Your task to perform on an android device: Clear the cart on bestbuy. Add lg ultragear to the cart on bestbuy Image 0: 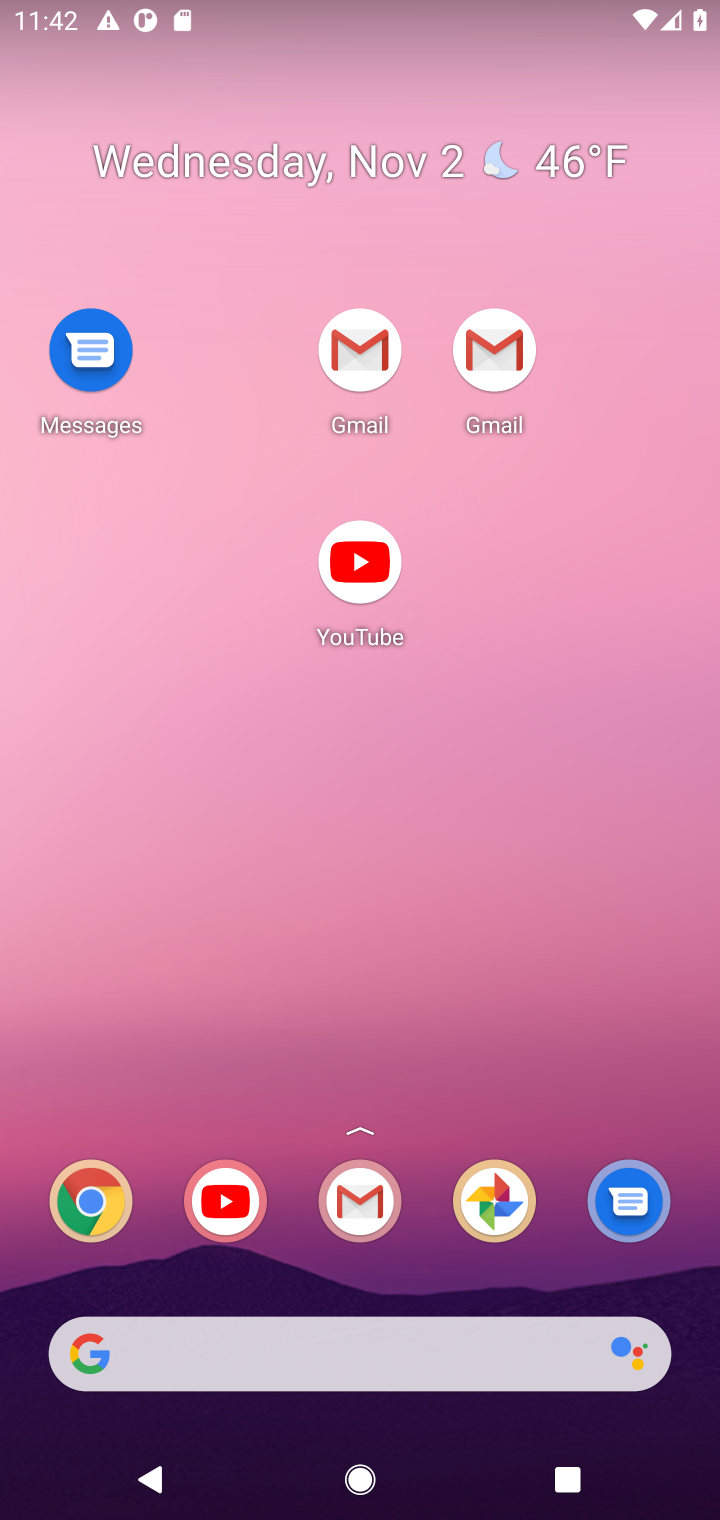
Step 0: drag from (423, 1280) to (364, 193)
Your task to perform on an android device: Clear the cart on bestbuy. Add lg ultragear to the cart on bestbuy Image 1: 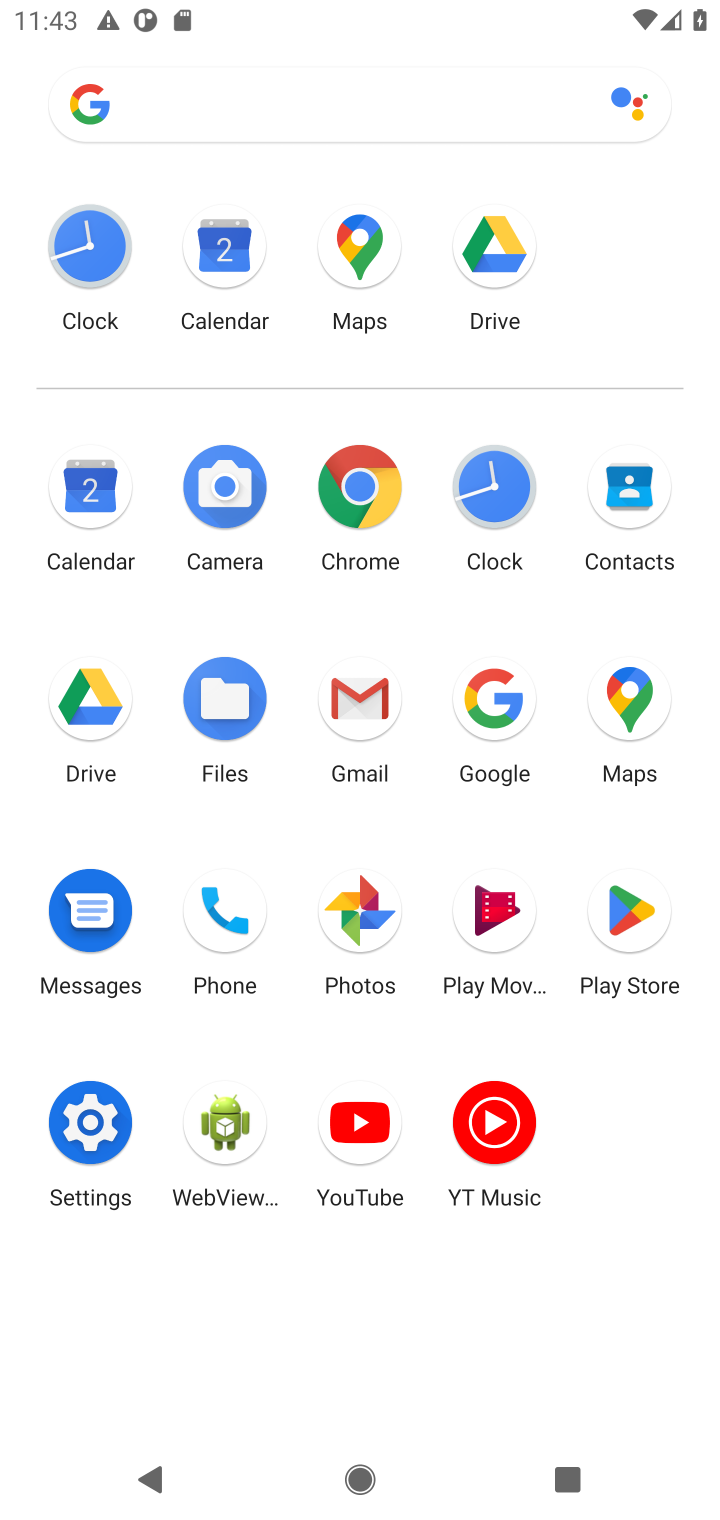
Step 1: click (347, 498)
Your task to perform on an android device: Clear the cart on bestbuy. Add lg ultragear to the cart on bestbuy Image 2: 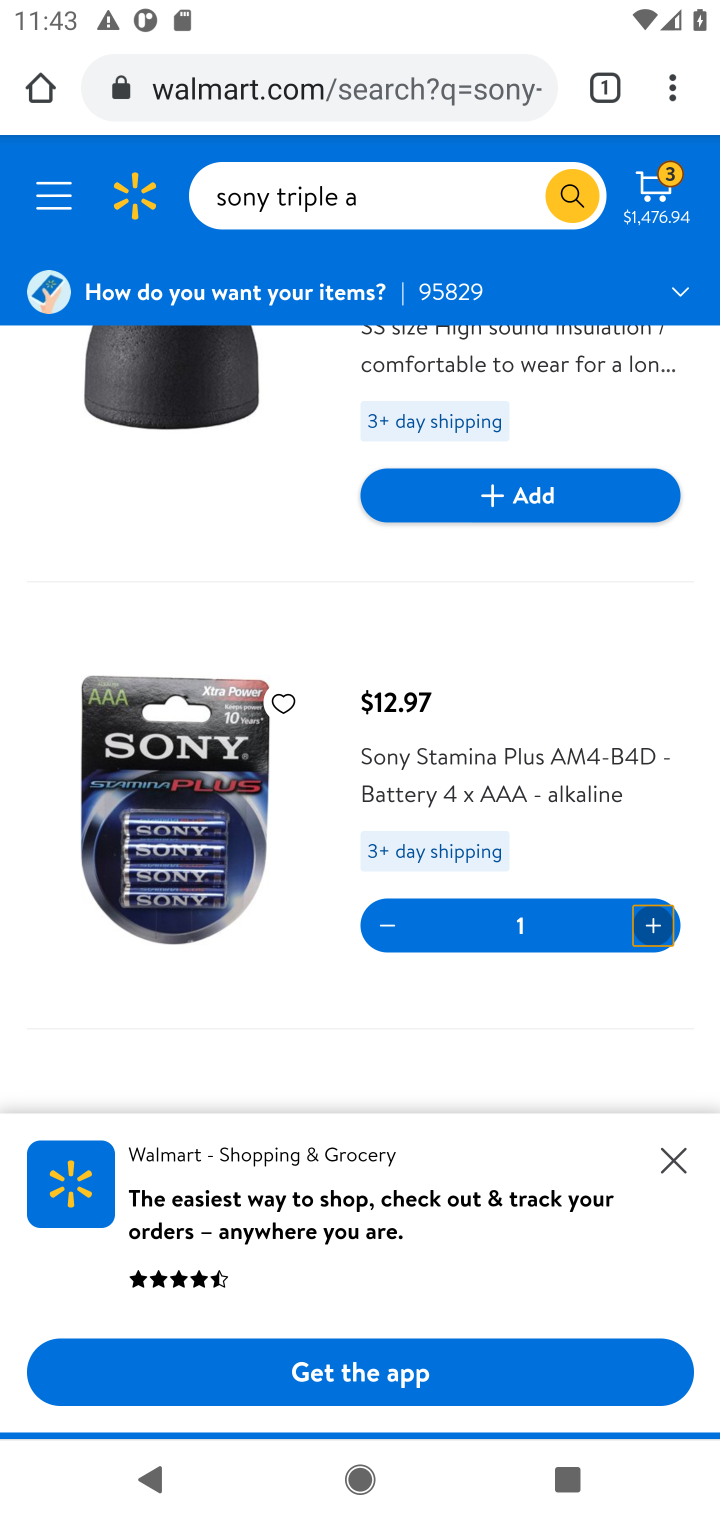
Step 2: click (327, 92)
Your task to perform on an android device: Clear the cart on bestbuy. Add lg ultragear to the cart on bestbuy Image 3: 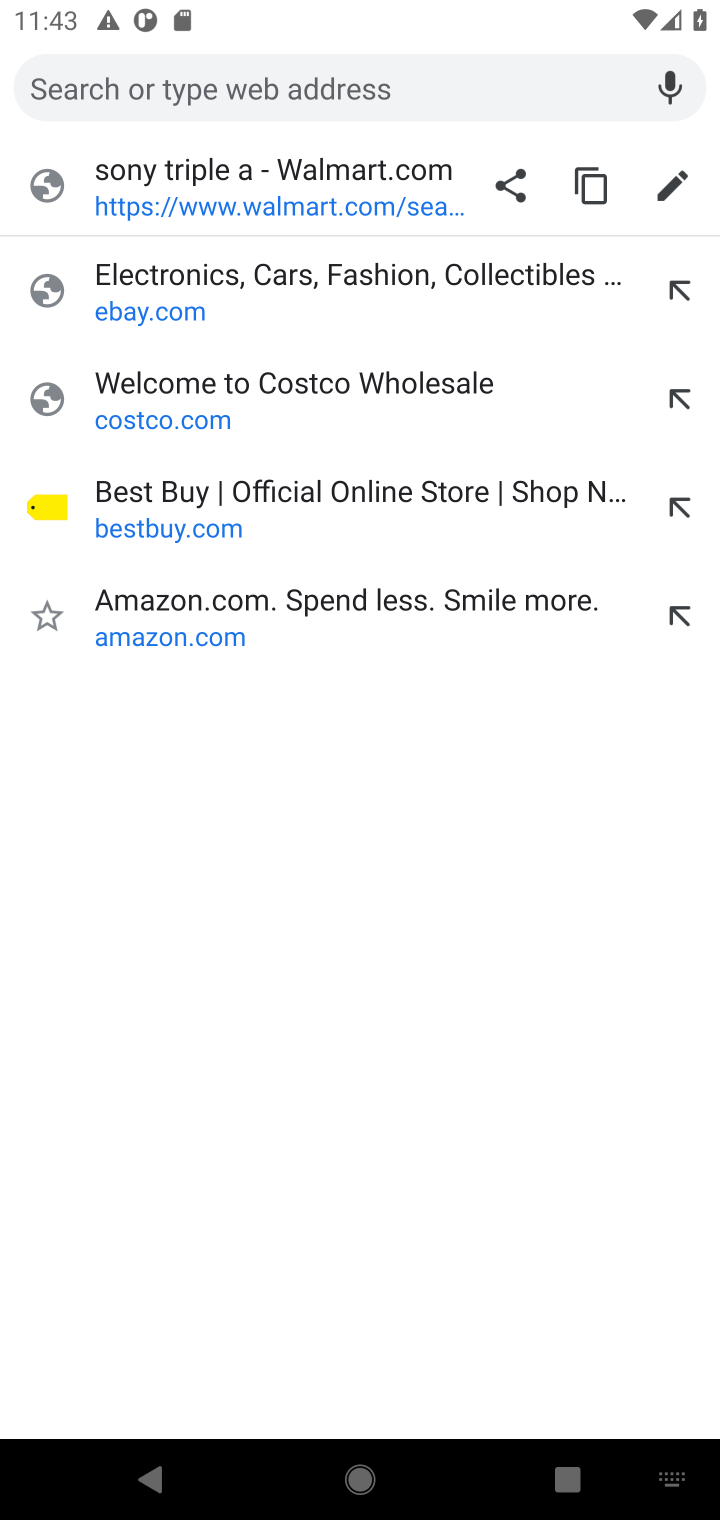
Step 3: type "bestbuy.com"
Your task to perform on an android device: Clear the cart on bestbuy. Add lg ultragear to the cart on bestbuy Image 4: 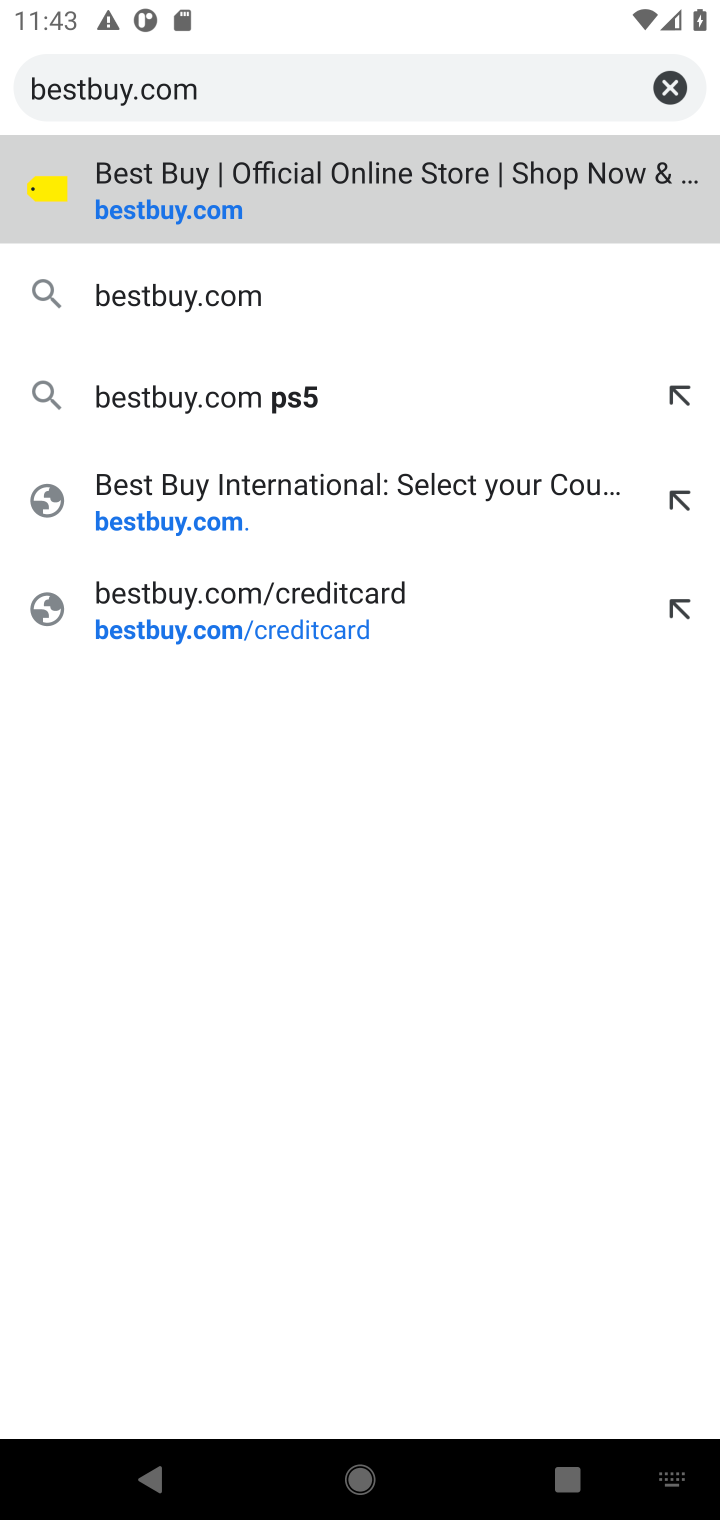
Step 4: press enter
Your task to perform on an android device: Clear the cart on bestbuy. Add lg ultragear to the cart on bestbuy Image 5: 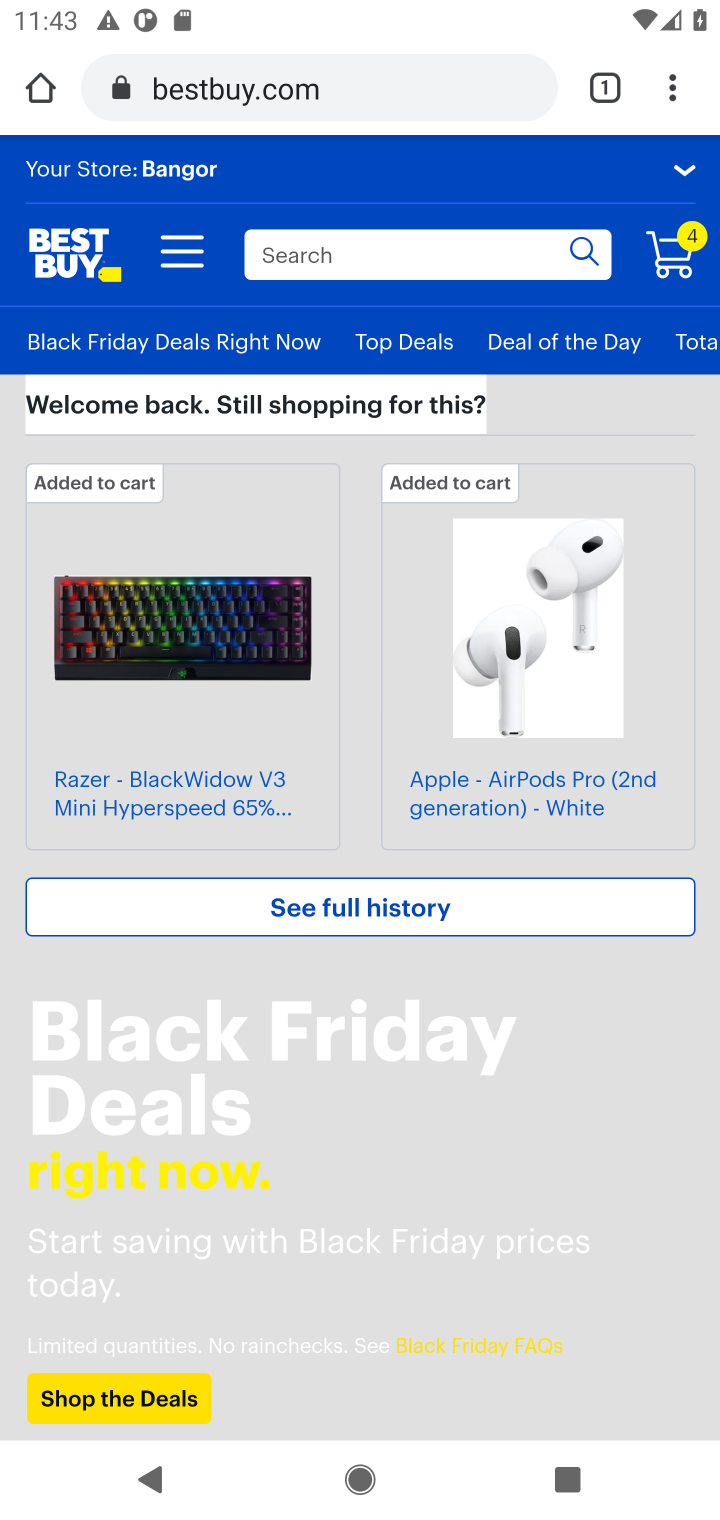
Step 5: click (664, 269)
Your task to perform on an android device: Clear the cart on bestbuy. Add lg ultragear to the cart on bestbuy Image 6: 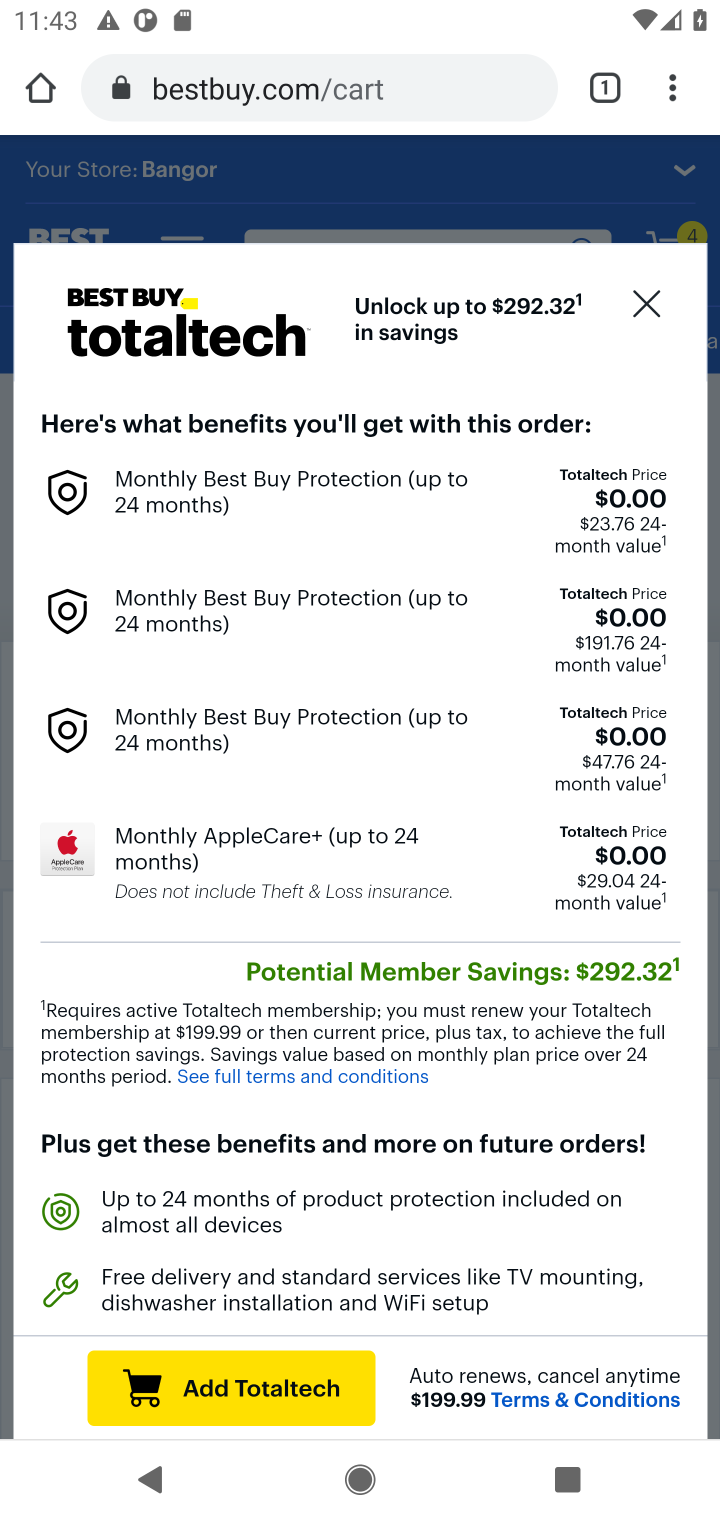
Step 6: click (651, 295)
Your task to perform on an android device: Clear the cart on bestbuy. Add lg ultragear to the cart on bestbuy Image 7: 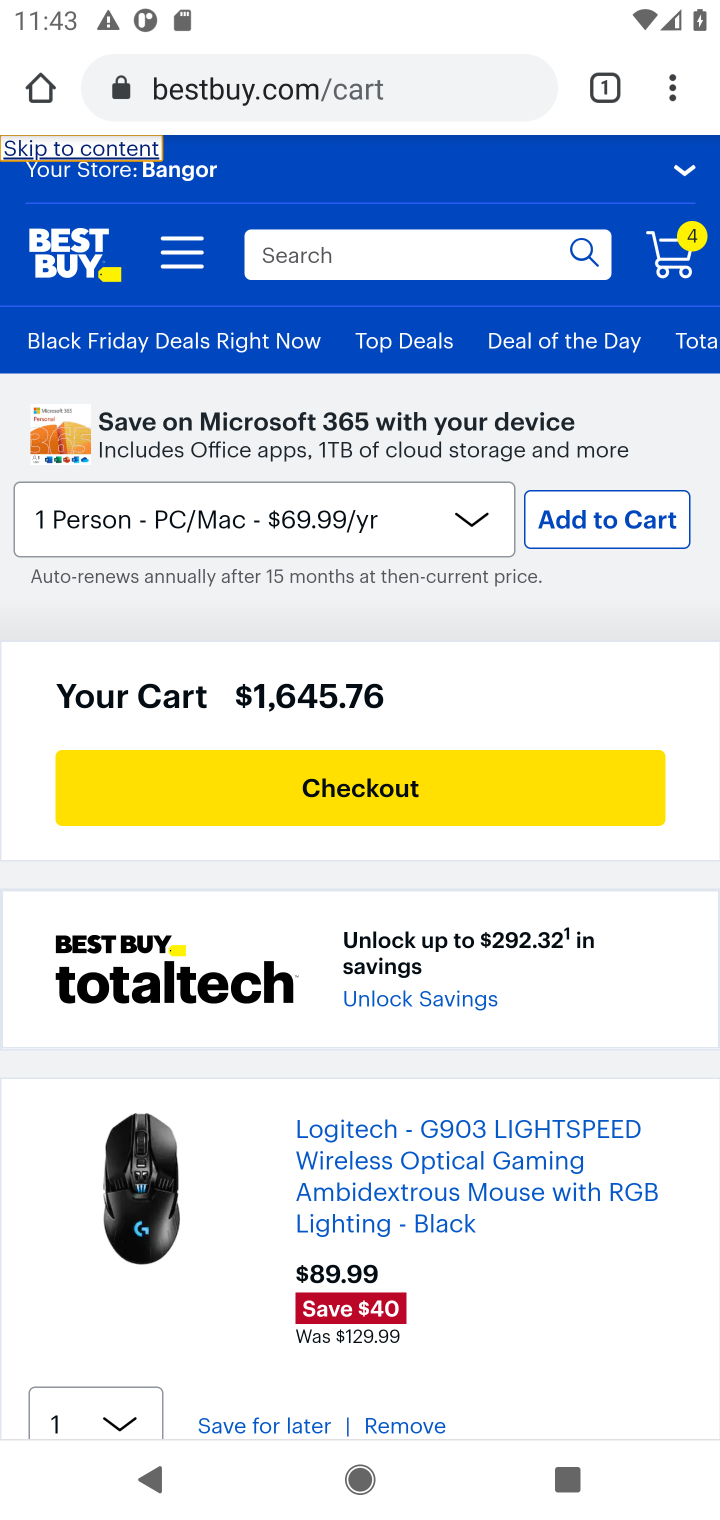
Step 7: drag from (452, 1230) to (415, 318)
Your task to perform on an android device: Clear the cart on bestbuy. Add lg ultragear to the cart on bestbuy Image 8: 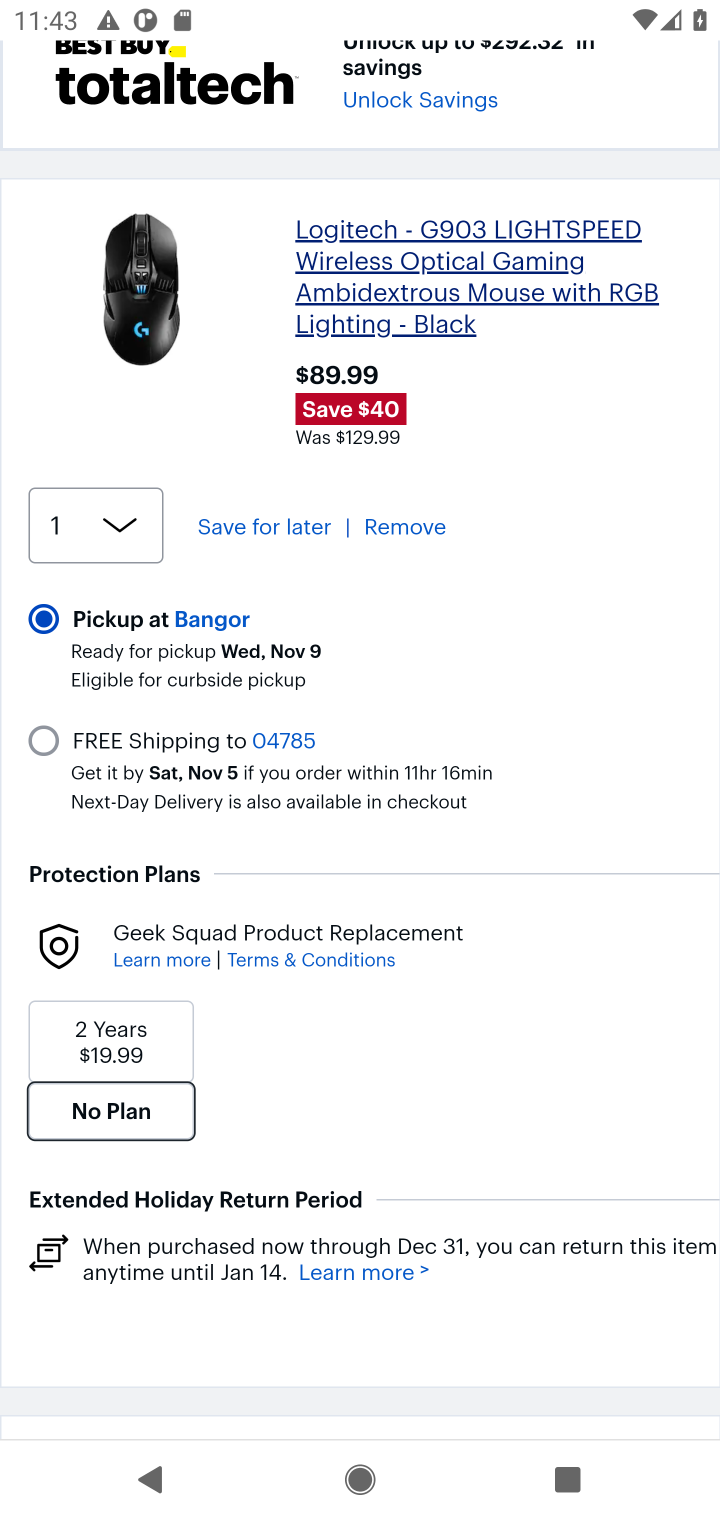
Step 8: click (391, 528)
Your task to perform on an android device: Clear the cart on bestbuy. Add lg ultragear to the cart on bestbuy Image 9: 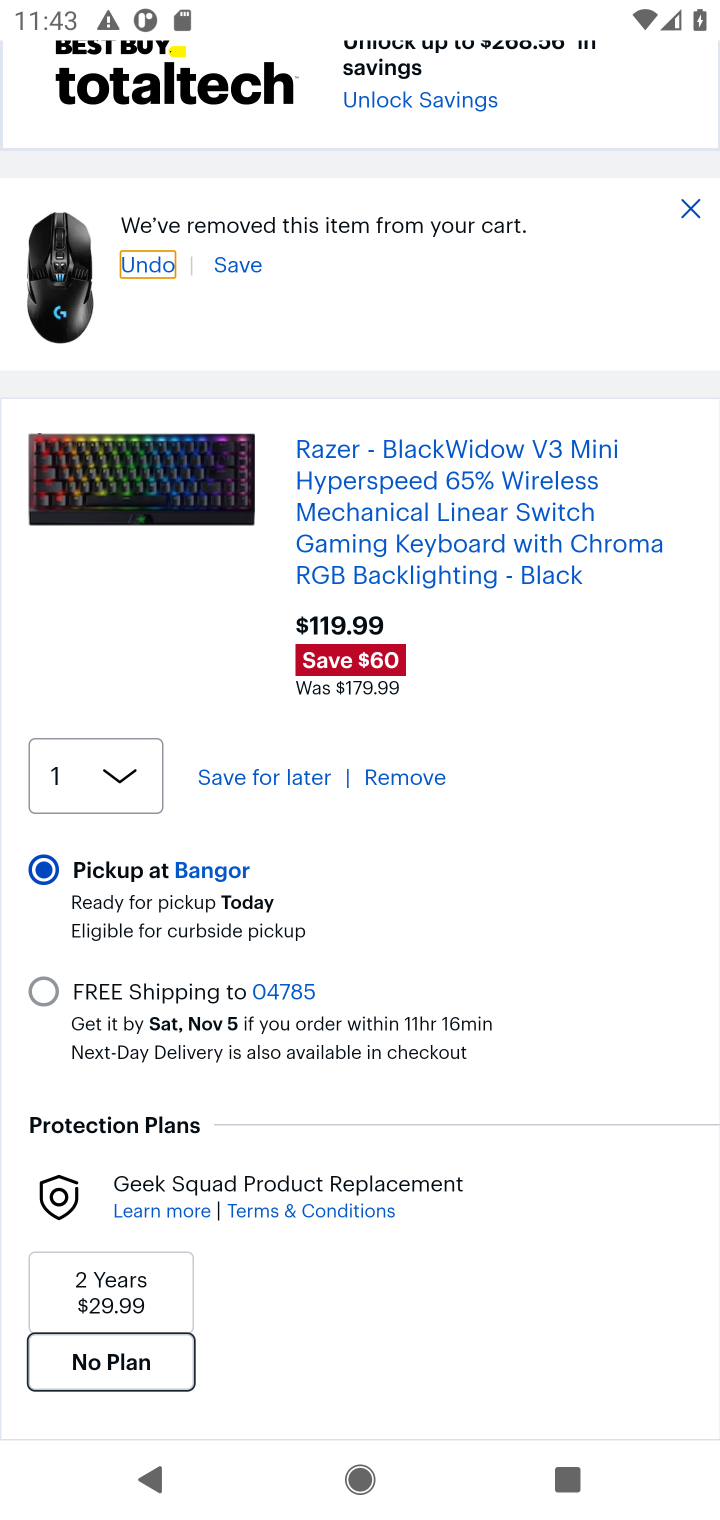
Step 9: click (416, 798)
Your task to perform on an android device: Clear the cart on bestbuy. Add lg ultragear to the cart on bestbuy Image 10: 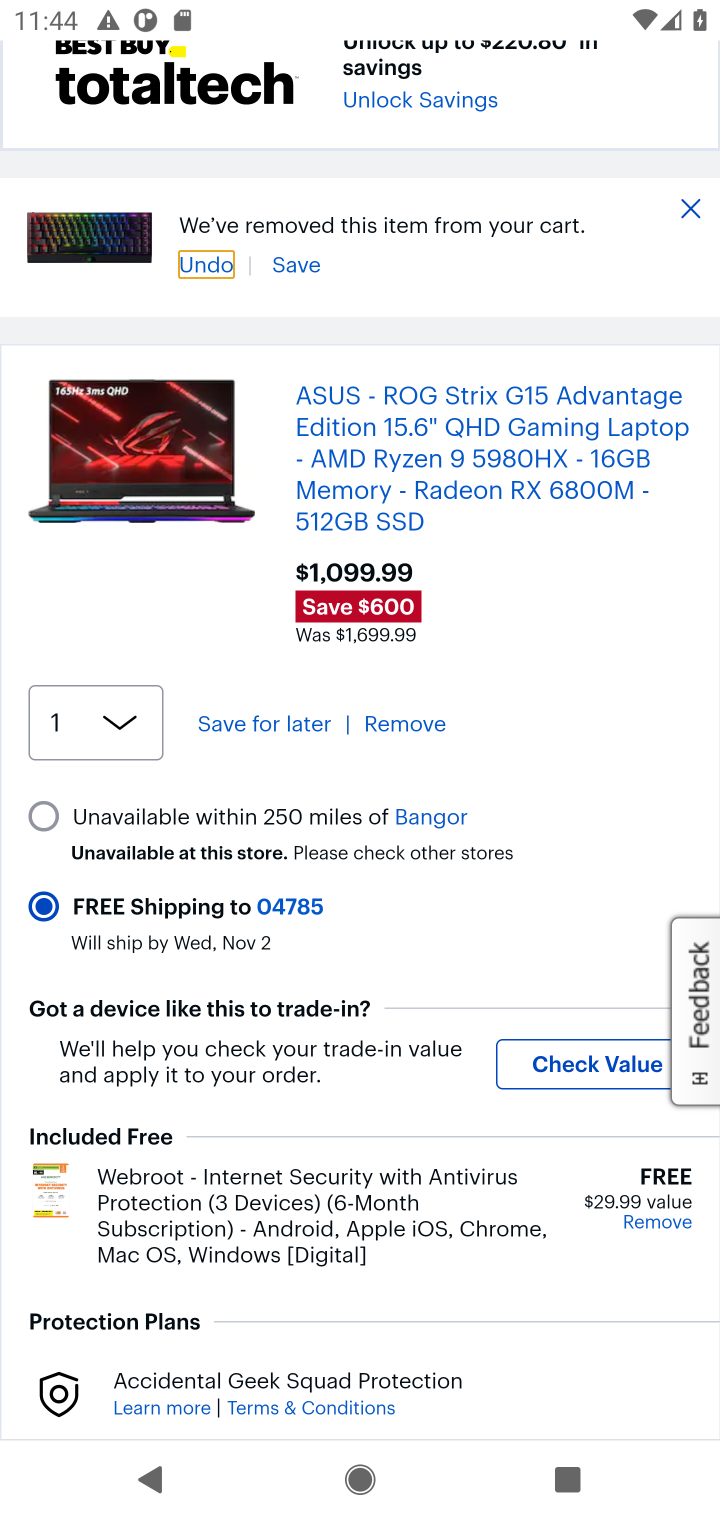
Step 10: click (416, 719)
Your task to perform on an android device: Clear the cart on bestbuy. Add lg ultragear to the cart on bestbuy Image 11: 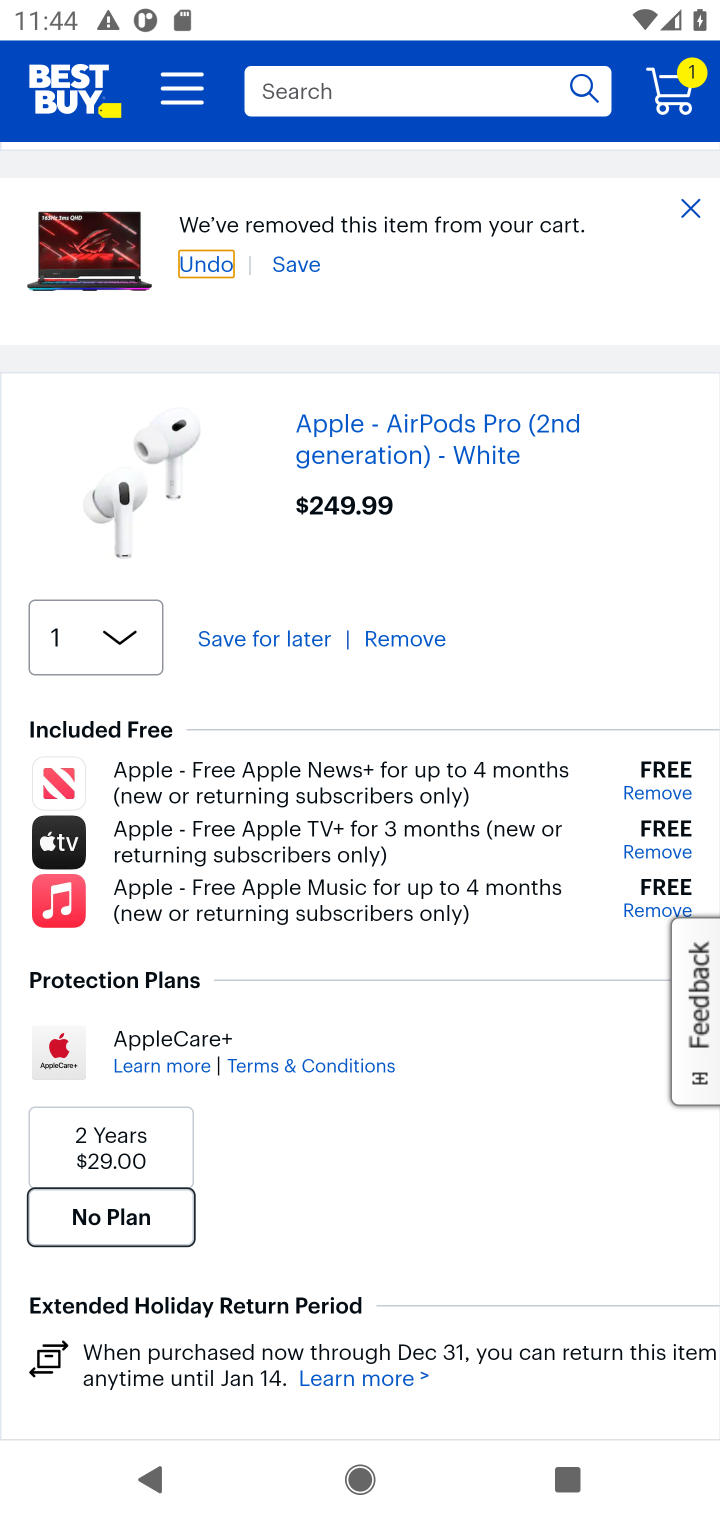
Step 11: click (404, 631)
Your task to perform on an android device: Clear the cart on bestbuy. Add lg ultragear to the cart on bestbuy Image 12: 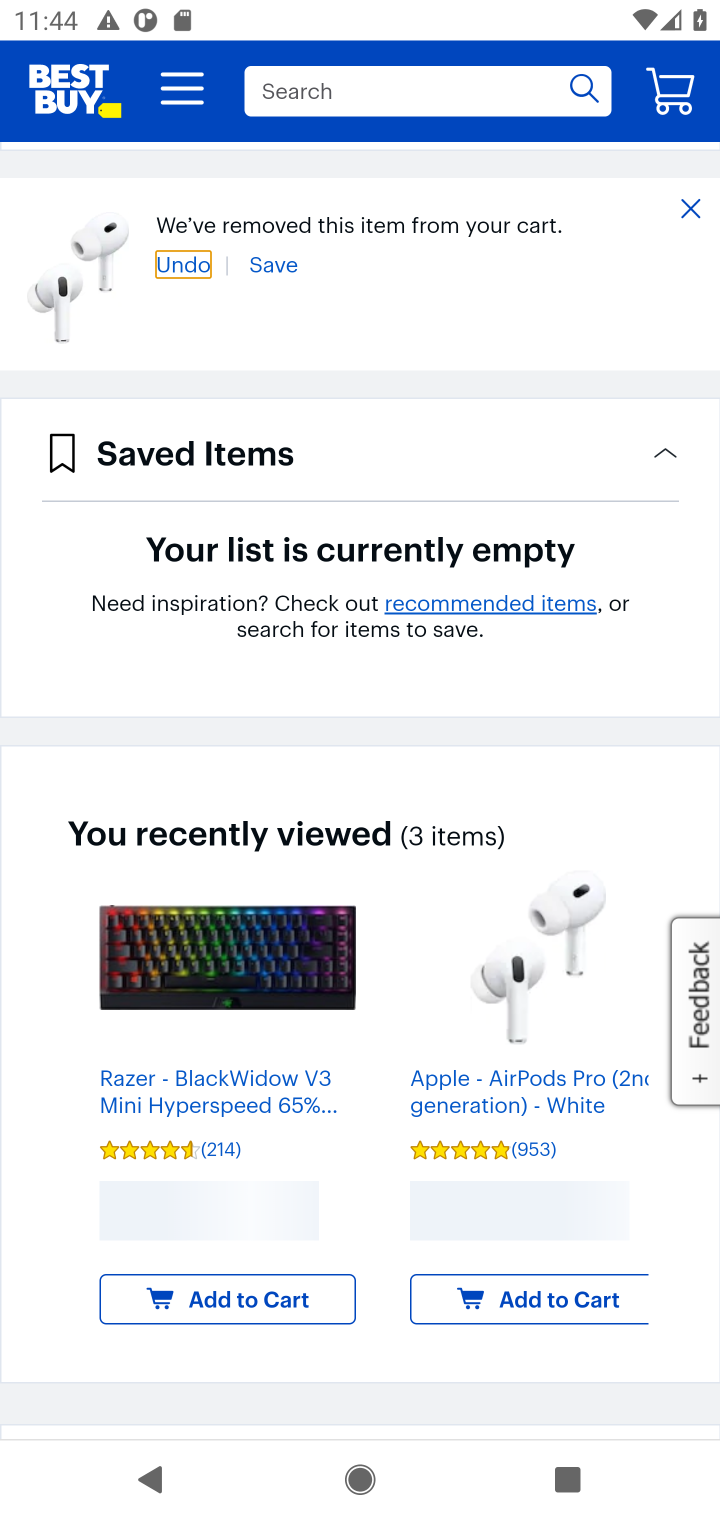
Step 12: click (469, 99)
Your task to perform on an android device: Clear the cart on bestbuy. Add lg ultragear to the cart on bestbuy Image 13: 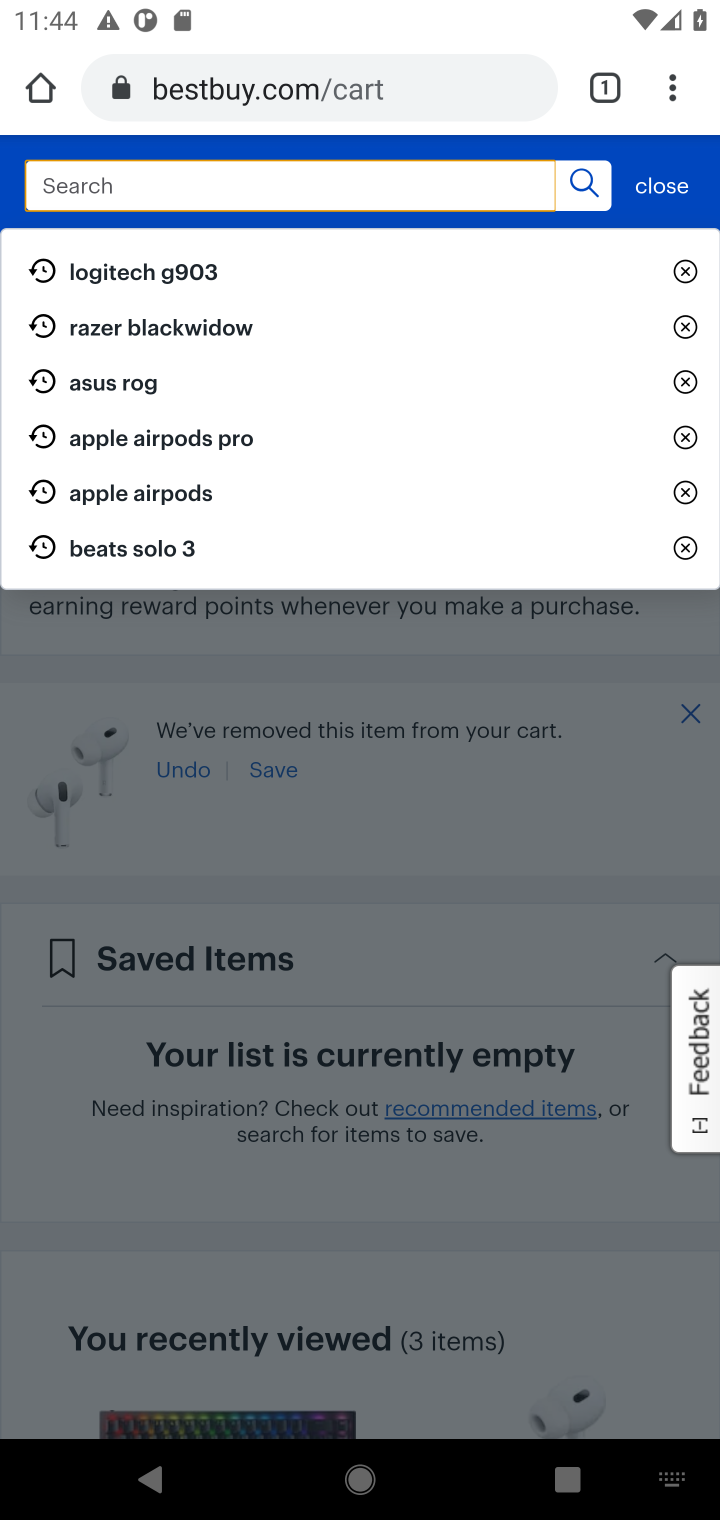
Step 13: type "lg ultragear"
Your task to perform on an android device: Clear the cart on bestbuy. Add lg ultragear to the cart on bestbuy Image 14: 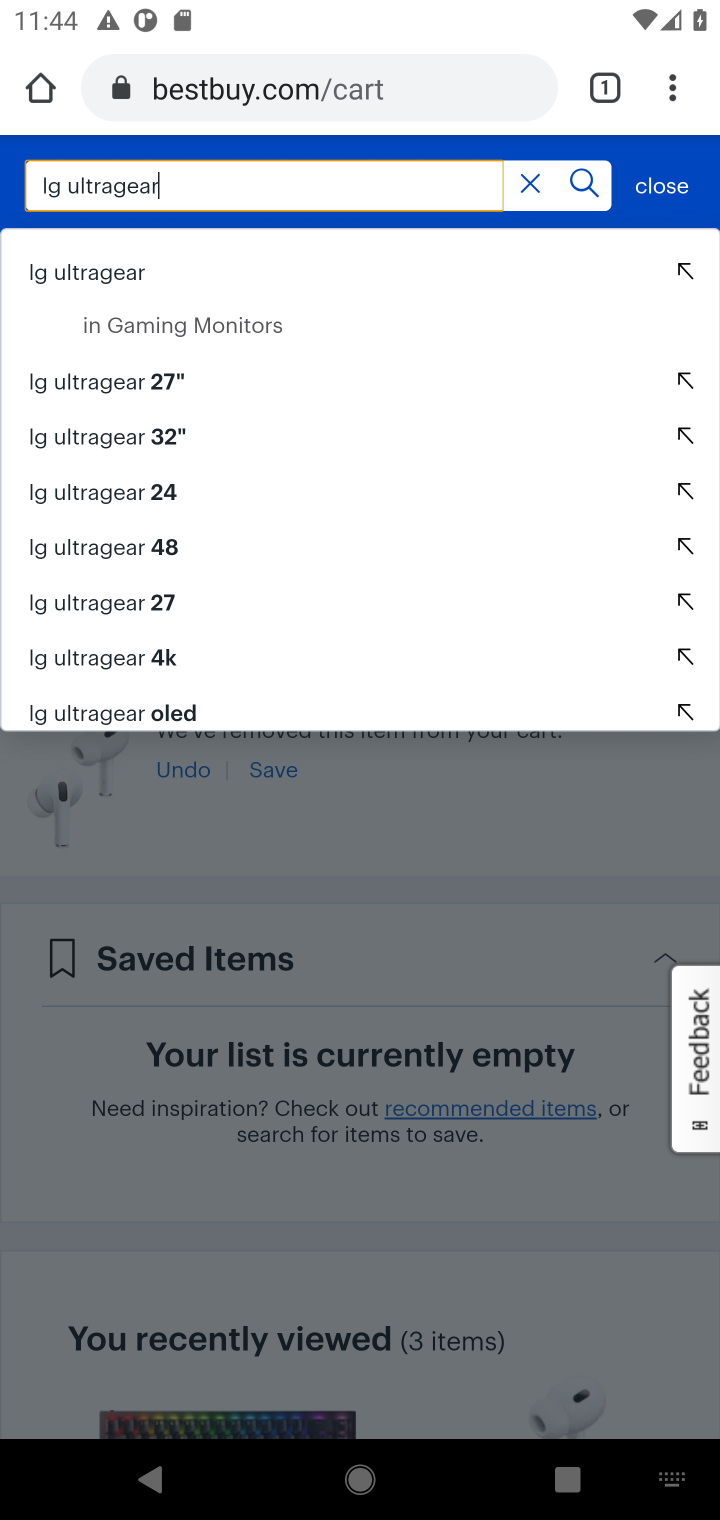
Step 14: press enter
Your task to perform on an android device: Clear the cart on bestbuy. Add lg ultragear to the cart on bestbuy Image 15: 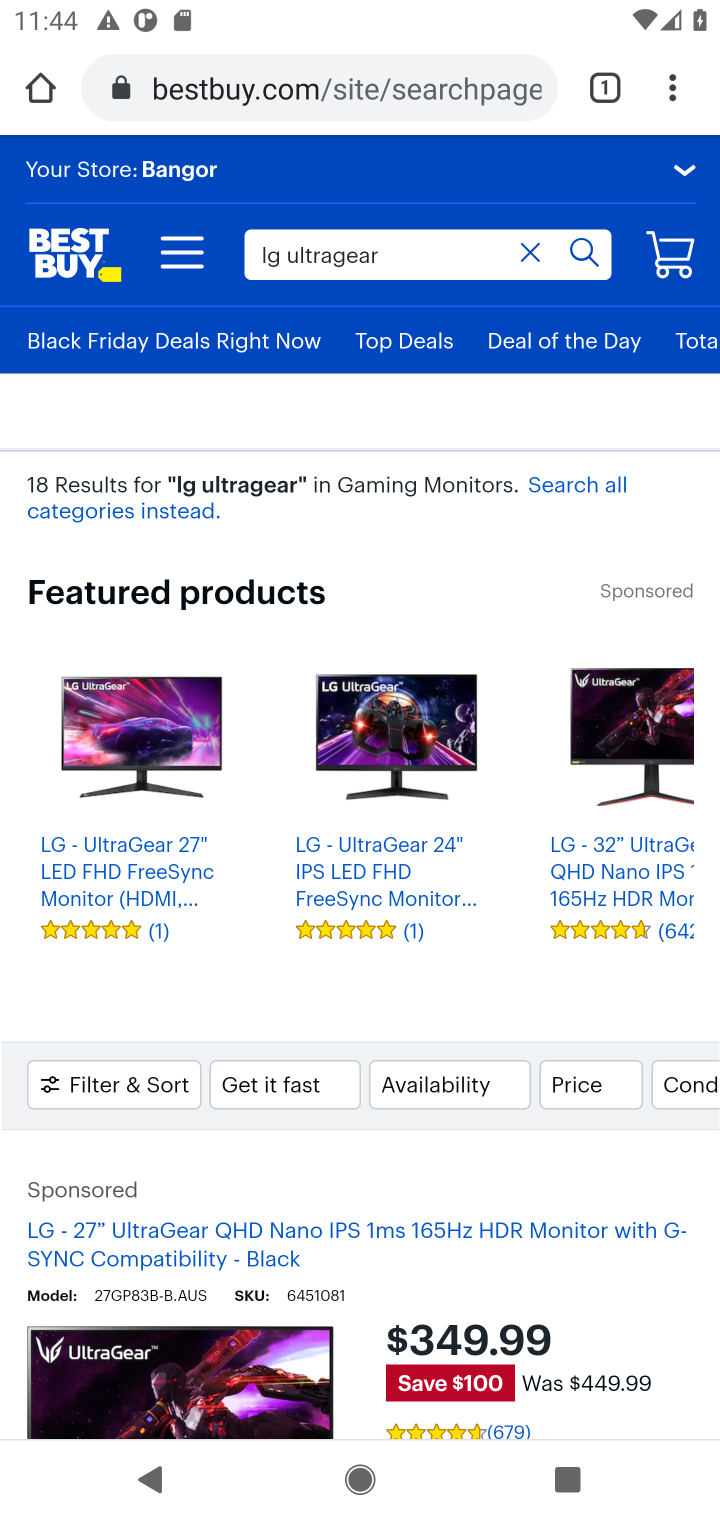
Step 15: drag from (350, 1253) to (321, 475)
Your task to perform on an android device: Clear the cart on bestbuy. Add lg ultragear to the cart on bestbuy Image 16: 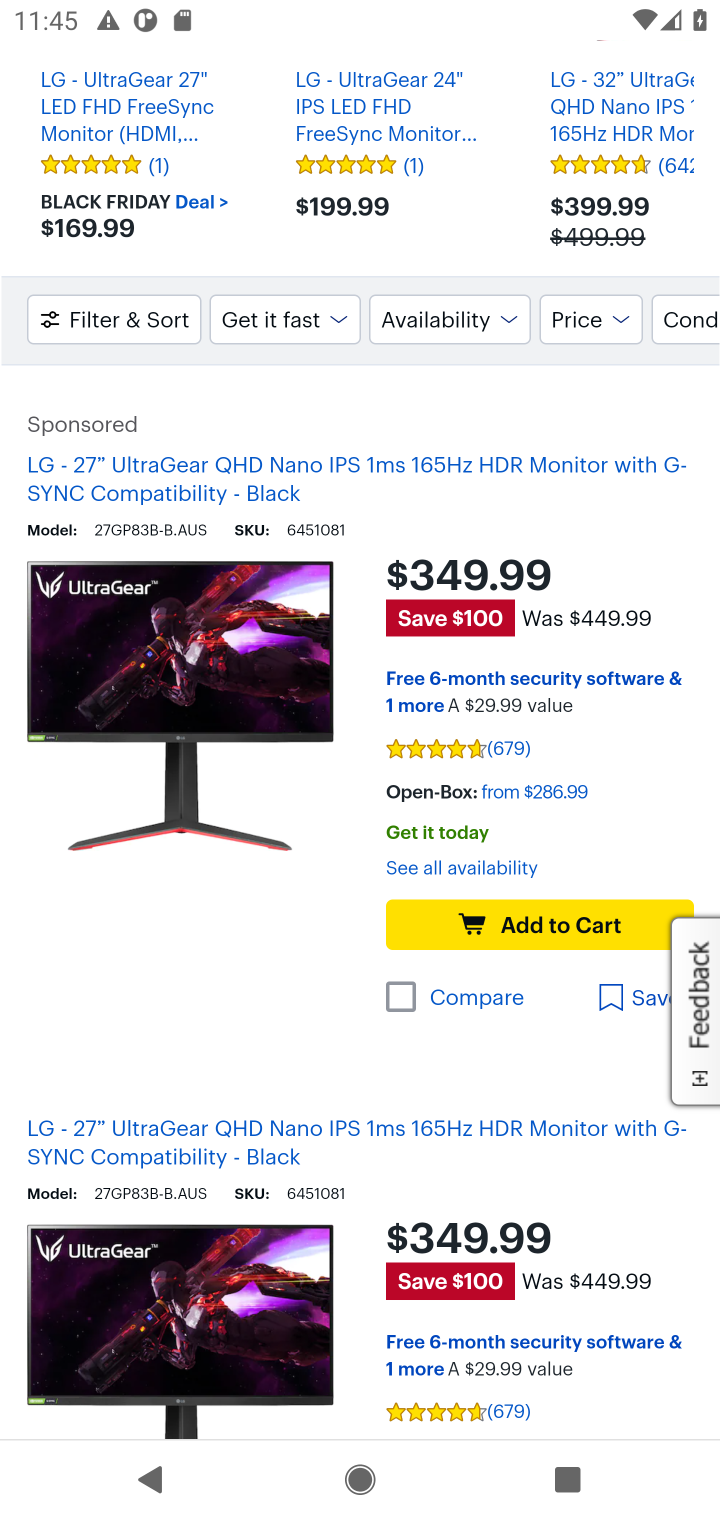
Step 16: click (254, 1143)
Your task to perform on an android device: Clear the cart on bestbuy. Add lg ultragear to the cart on bestbuy Image 17: 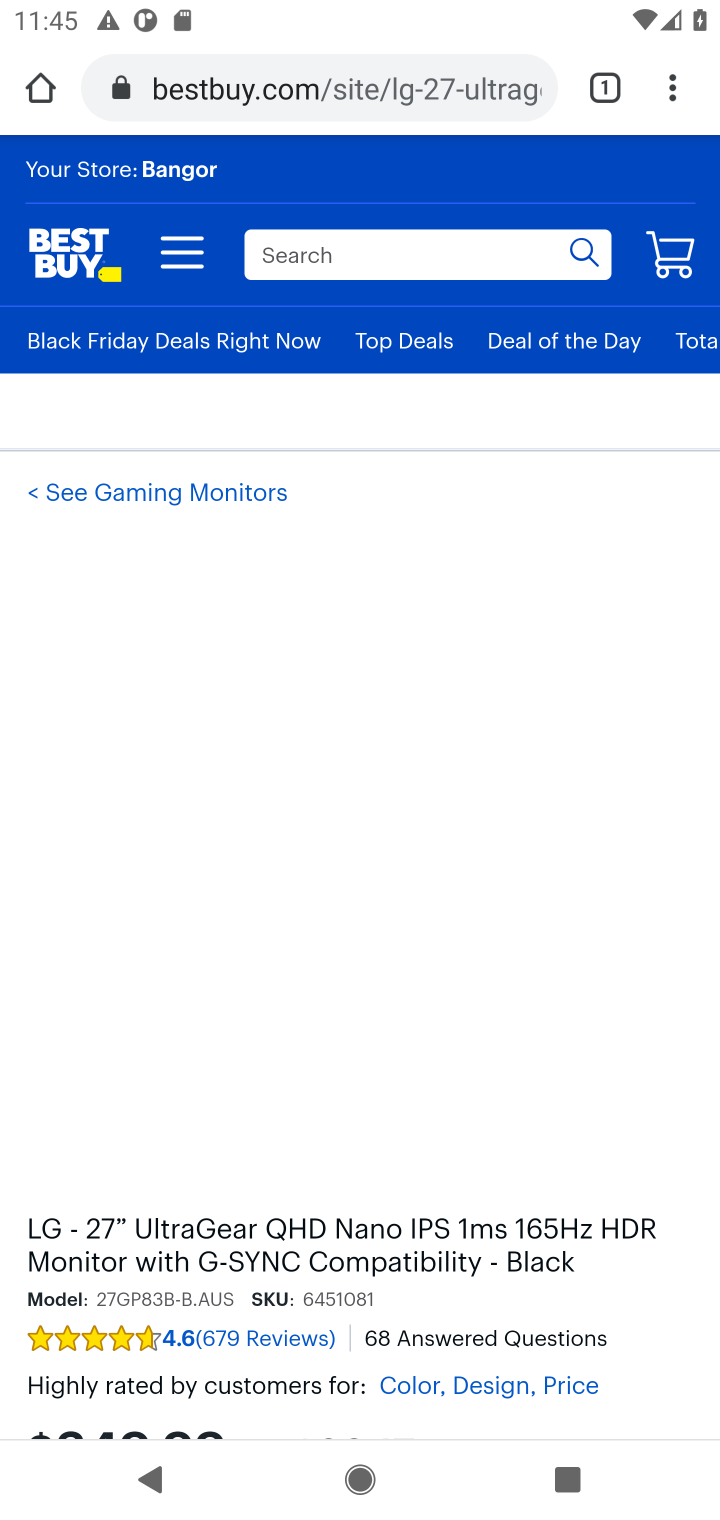
Step 17: drag from (323, 1196) to (321, 488)
Your task to perform on an android device: Clear the cart on bestbuy. Add lg ultragear to the cart on bestbuy Image 18: 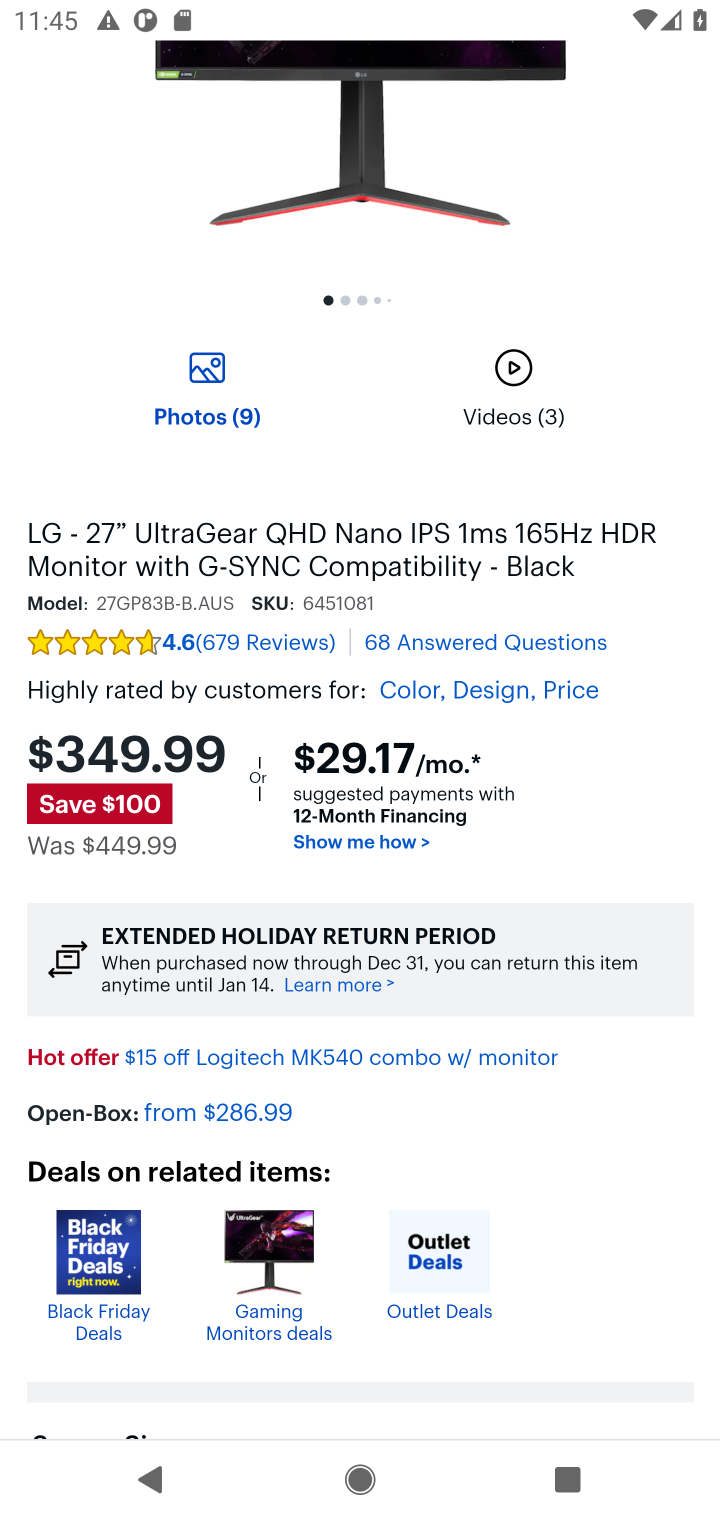
Step 18: drag from (428, 1099) to (440, 538)
Your task to perform on an android device: Clear the cart on bestbuy. Add lg ultragear to the cart on bestbuy Image 19: 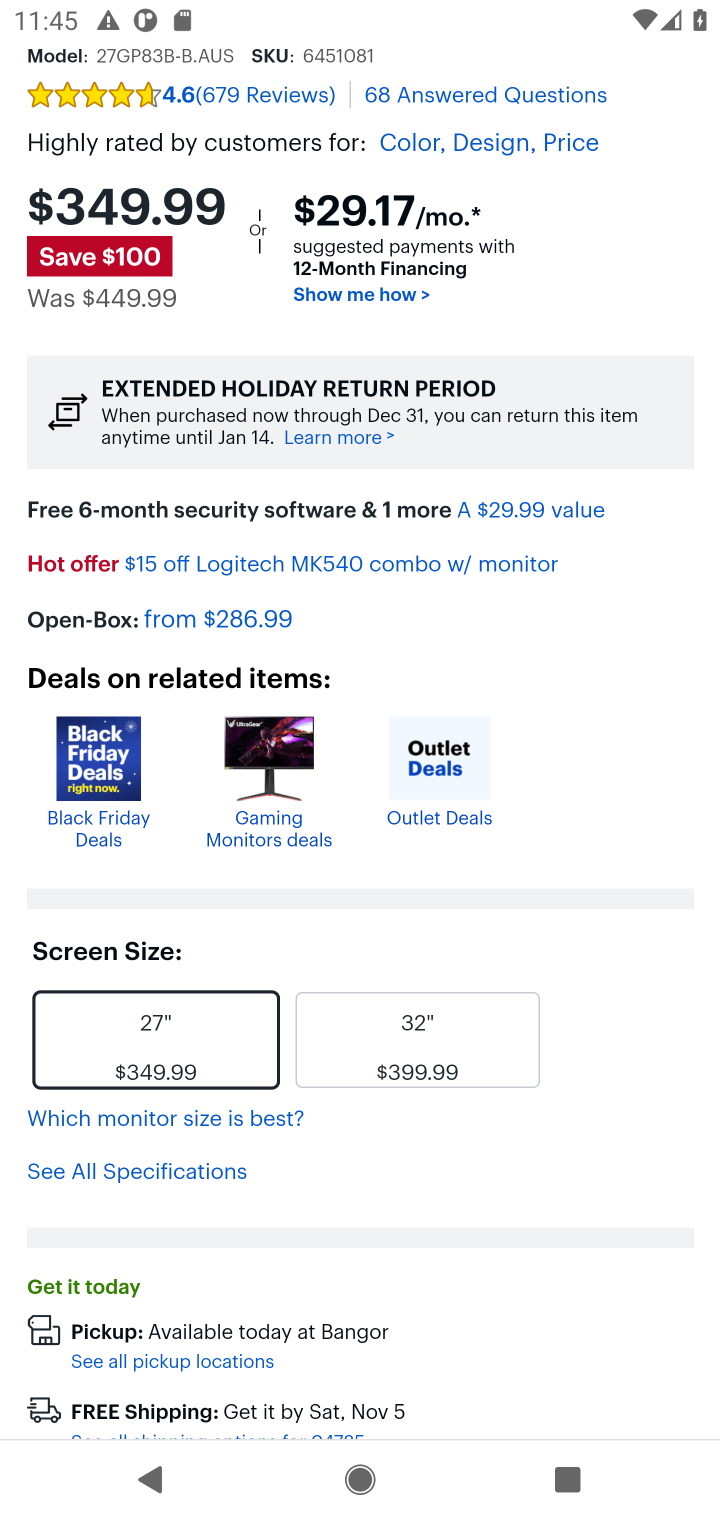
Step 19: drag from (433, 1354) to (505, 627)
Your task to perform on an android device: Clear the cart on bestbuy. Add lg ultragear to the cart on bestbuy Image 20: 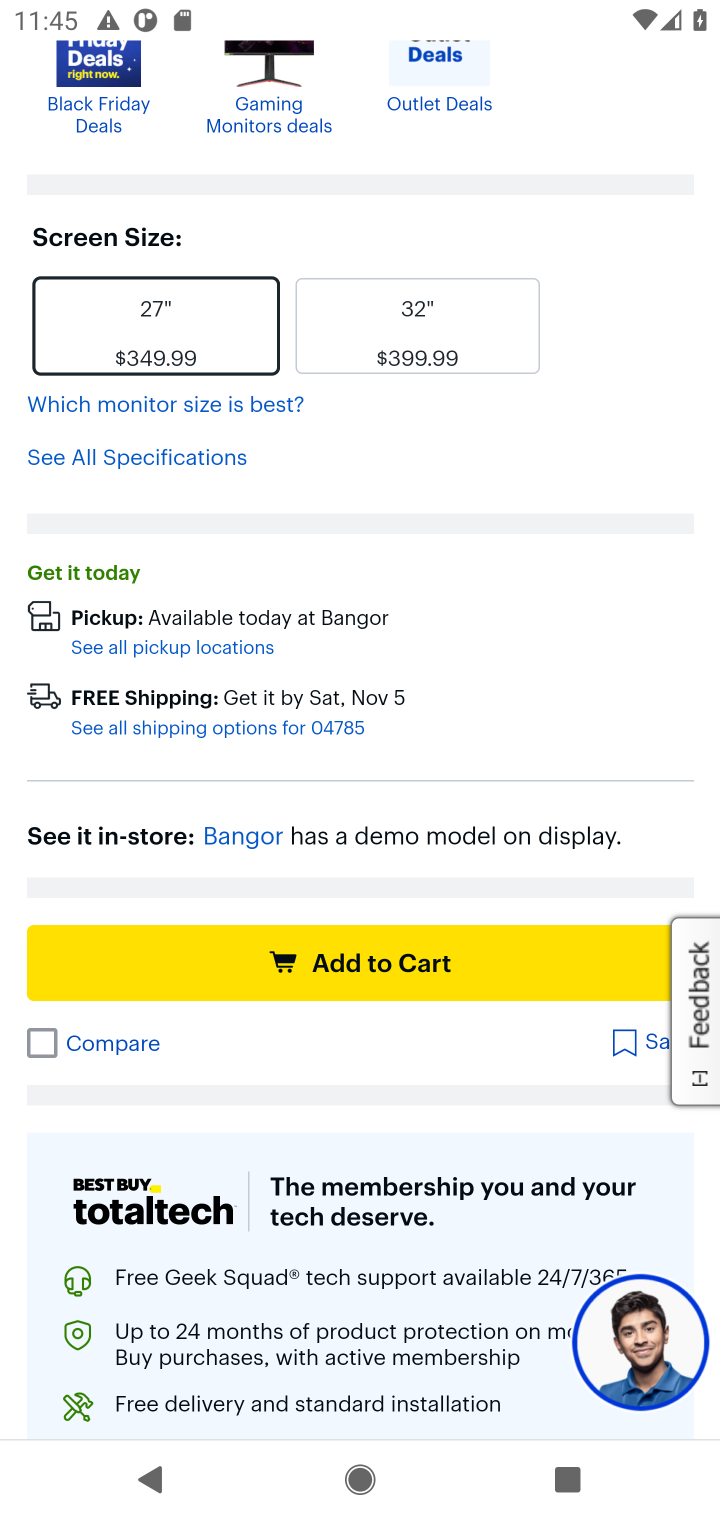
Step 20: click (491, 961)
Your task to perform on an android device: Clear the cart on bestbuy. Add lg ultragear to the cart on bestbuy Image 21: 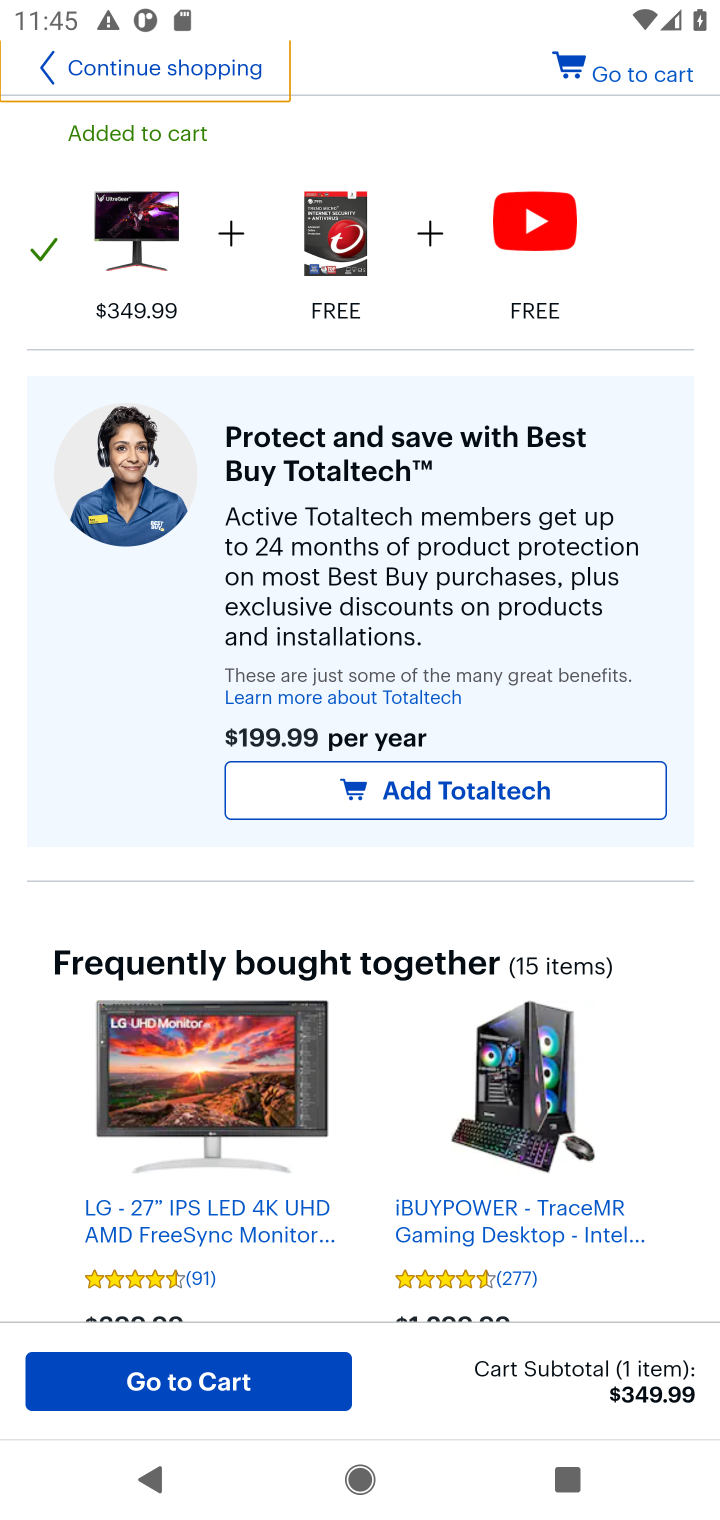
Step 21: click (178, 1391)
Your task to perform on an android device: Clear the cart on bestbuy. Add lg ultragear to the cart on bestbuy Image 22: 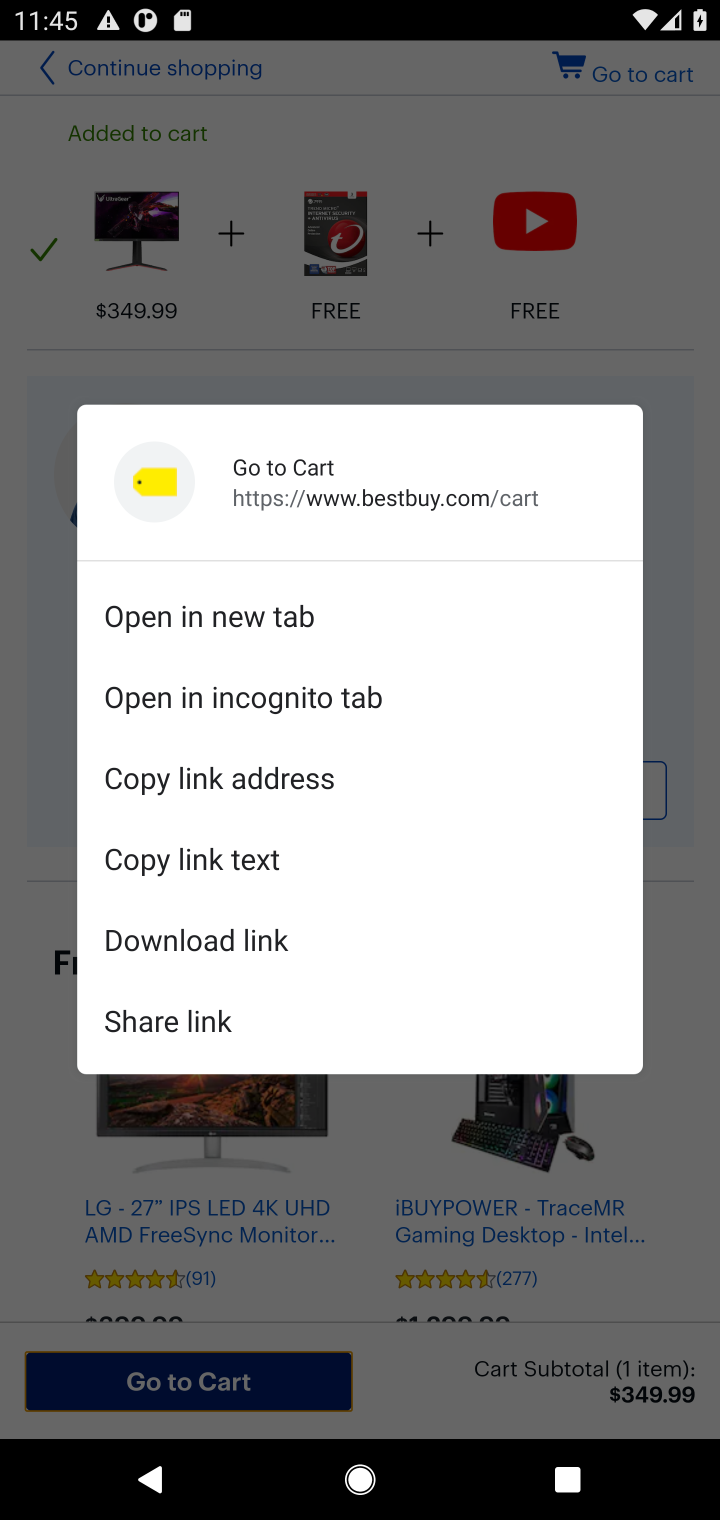
Step 22: click (178, 1391)
Your task to perform on an android device: Clear the cart on bestbuy. Add lg ultragear to the cart on bestbuy Image 23: 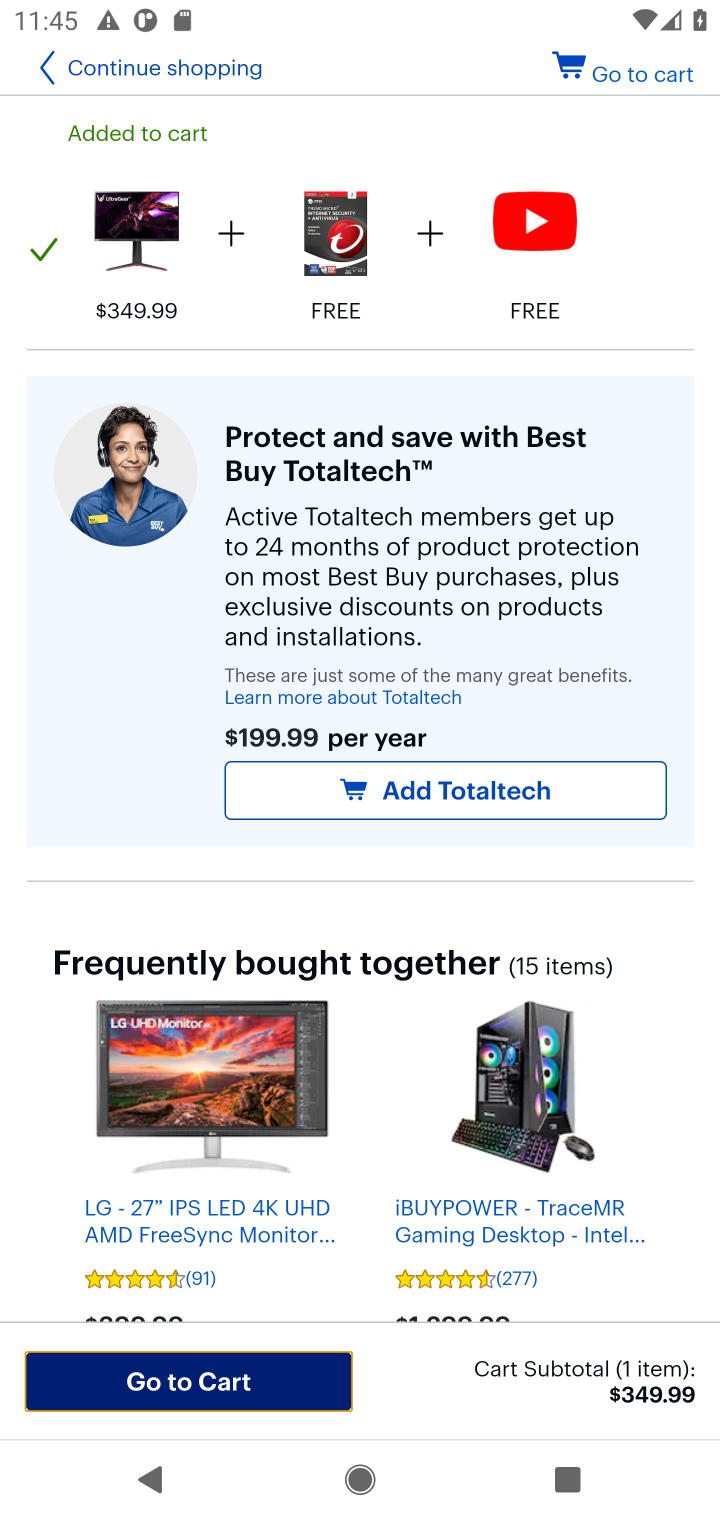
Step 23: click (178, 1391)
Your task to perform on an android device: Clear the cart on bestbuy. Add lg ultragear to the cart on bestbuy Image 24: 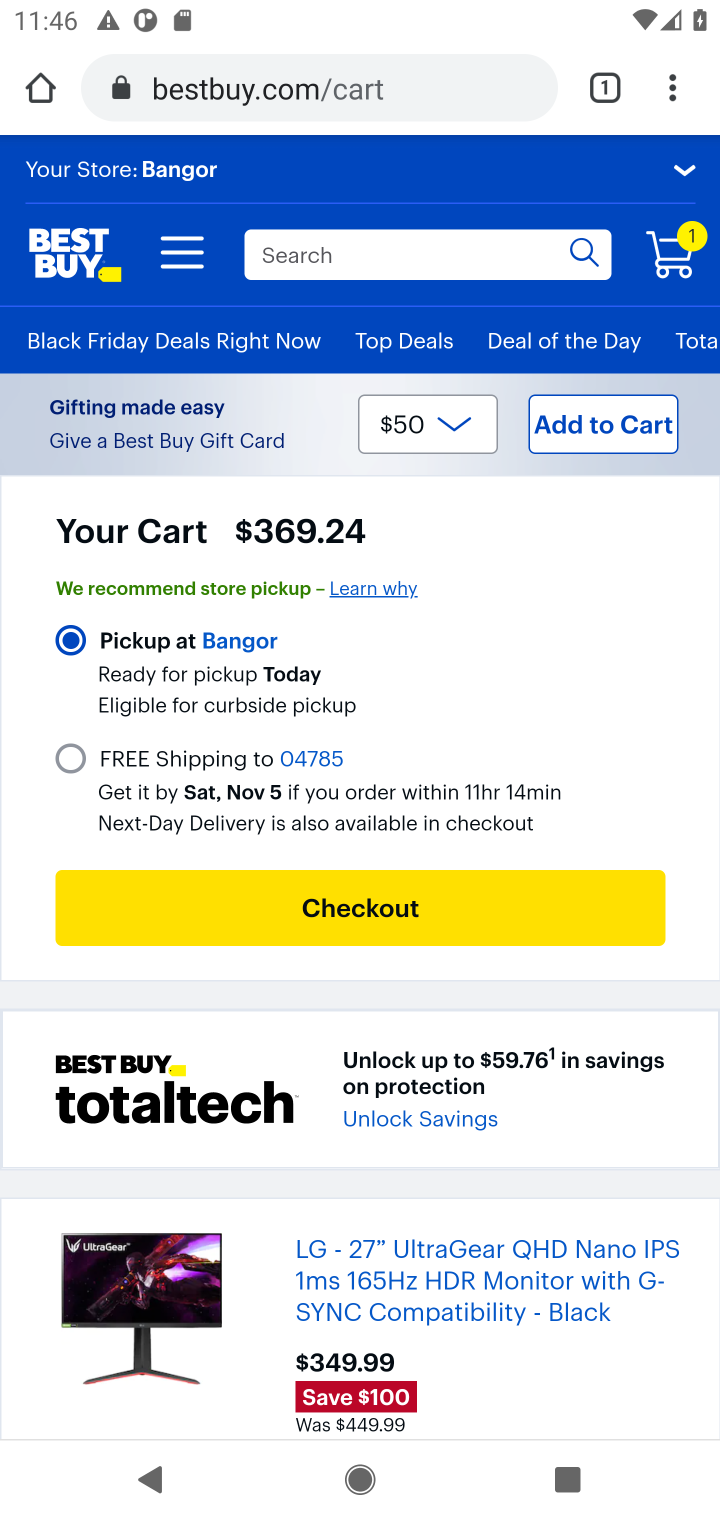
Step 24: task complete